Your task to perform on an android device: remove spam from my inbox in the gmail app Image 0: 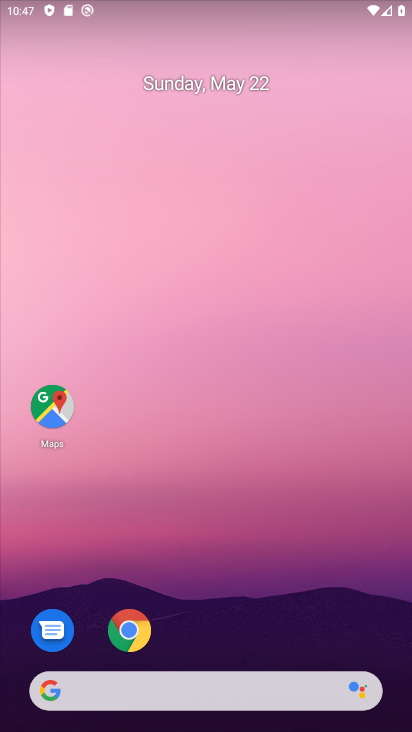
Step 0: drag from (326, 605) to (303, 260)
Your task to perform on an android device: remove spam from my inbox in the gmail app Image 1: 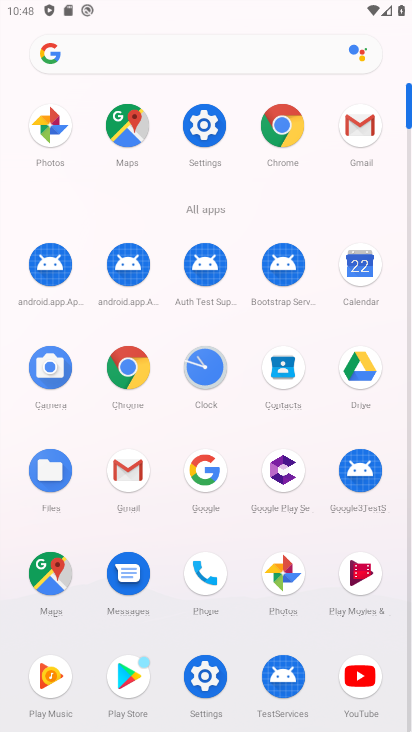
Step 1: click (115, 468)
Your task to perform on an android device: remove spam from my inbox in the gmail app Image 2: 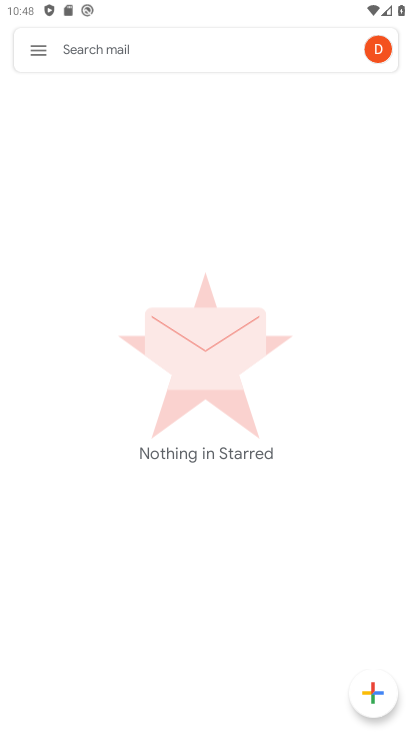
Step 2: click (36, 58)
Your task to perform on an android device: remove spam from my inbox in the gmail app Image 3: 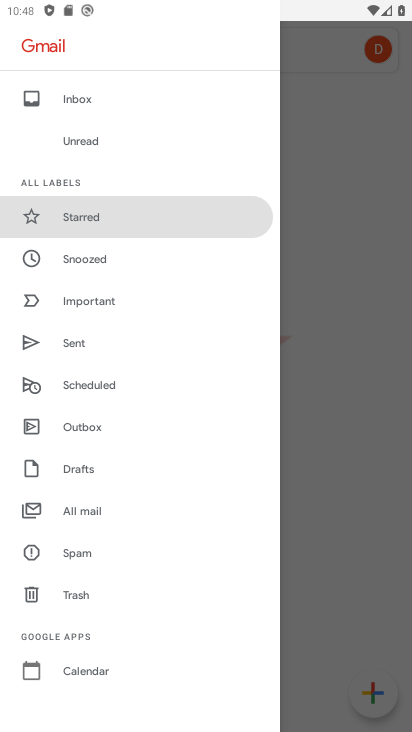
Step 3: drag from (152, 552) to (170, 347)
Your task to perform on an android device: remove spam from my inbox in the gmail app Image 4: 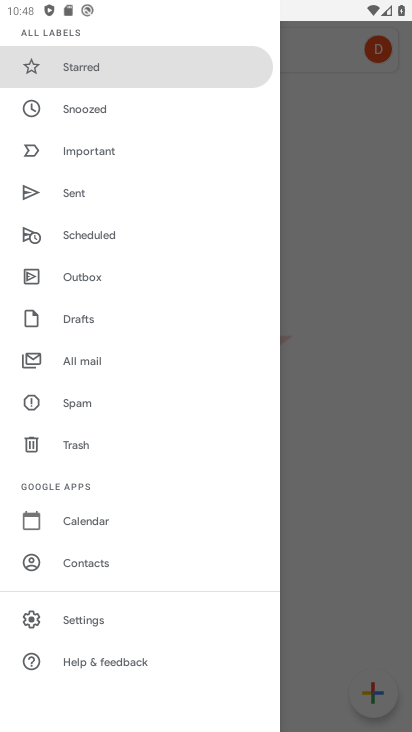
Step 4: drag from (177, 572) to (186, 425)
Your task to perform on an android device: remove spam from my inbox in the gmail app Image 5: 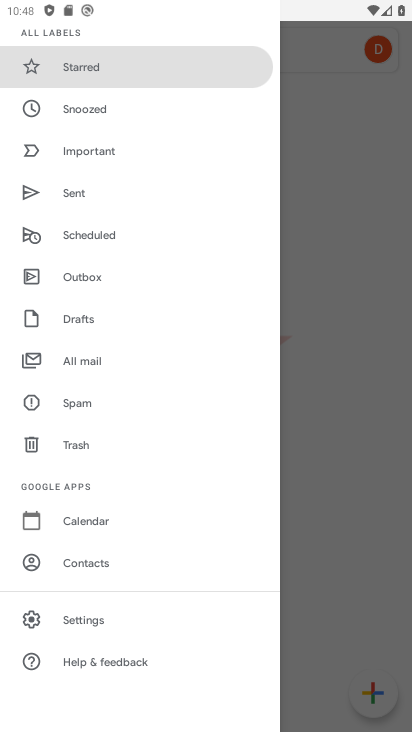
Step 5: drag from (209, 588) to (190, 395)
Your task to perform on an android device: remove spam from my inbox in the gmail app Image 6: 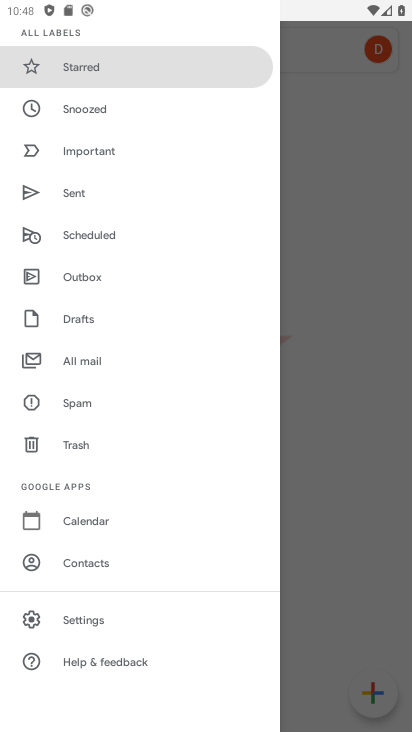
Step 6: drag from (181, 560) to (177, 392)
Your task to perform on an android device: remove spam from my inbox in the gmail app Image 7: 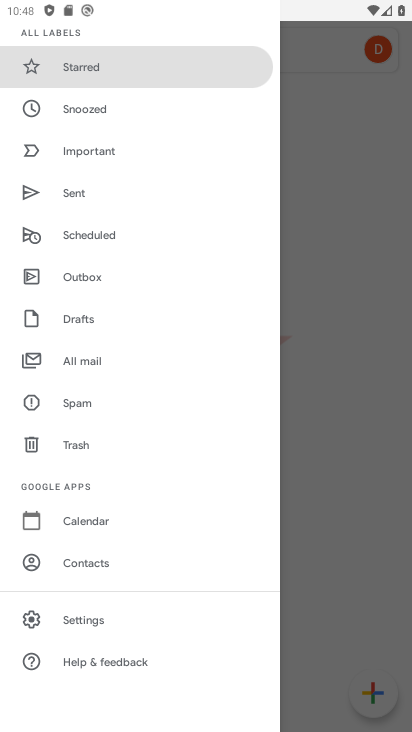
Step 7: drag from (186, 592) to (200, 414)
Your task to perform on an android device: remove spam from my inbox in the gmail app Image 8: 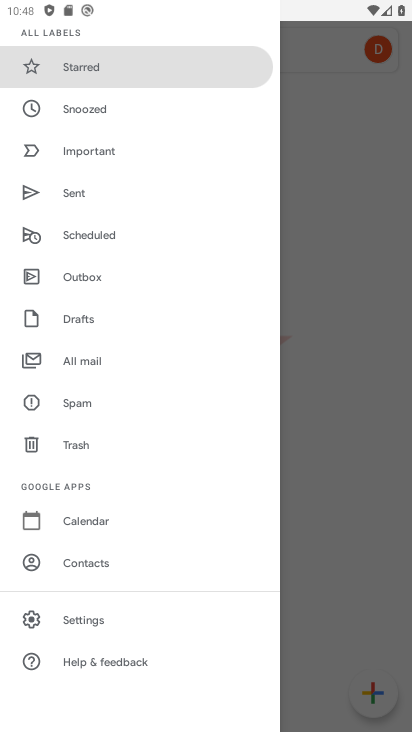
Step 8: drag from (195, 367) to (188, 501)
Your task to perform on an android device: remove spam from my inbox in the gmail app Image 9: 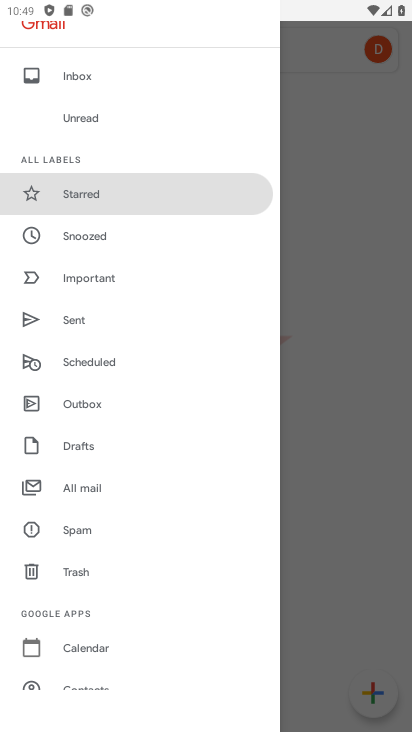
Step 9: drag from (186, 330) to (180, 491)
Your task to perform on an android device: remove spam from my inbox in the gmail app Image 10: 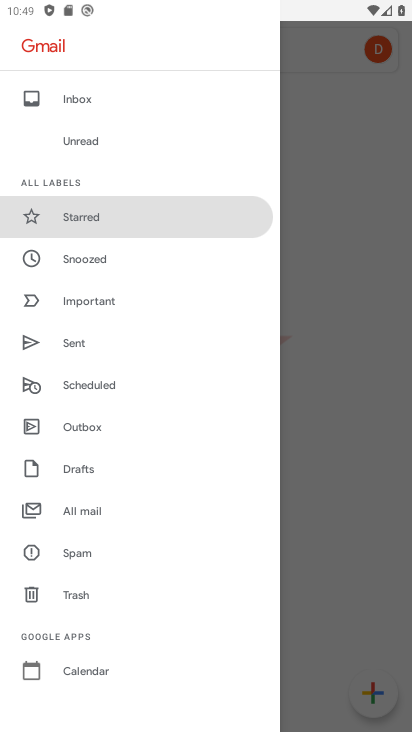
Step 10: drag from (202, 175) to (196, 418)
Your task to perform on an android device: remove spam from my inbox in the gmail app Image 11: 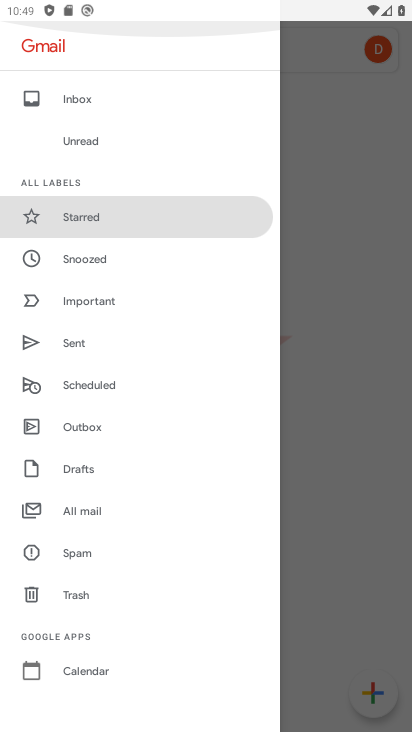
Step 11: drag from (187, 496) to (208, 348)
Your task to perform on an android device: remove spam from my inbox in the gmail app Image 12: 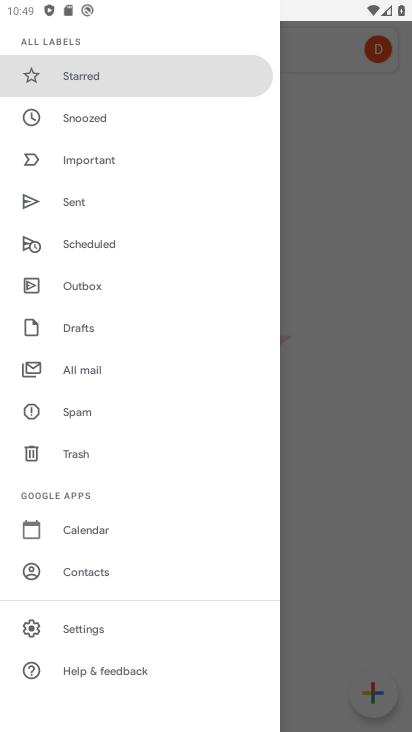
Step 12: drag from (181, 585) to (188, 506)
Your task to perform on an android device: remove spam from my inbox in the gmail app Image 13: 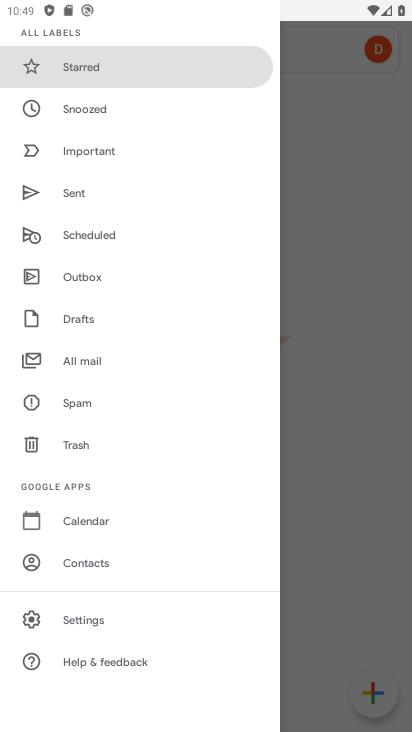
Step 13: drag from (201, 625) to (198, 517)
Your task to perform on an android device: remove spam from my inbox in the gmail app Image 14: 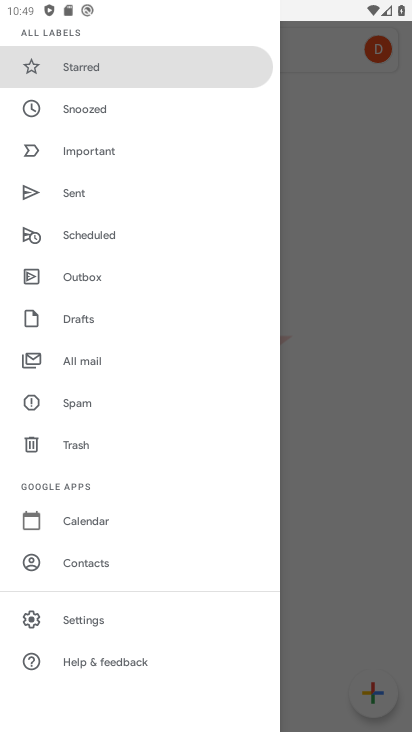
Step 14: click (80, 394)
Your task to perform on an android device: remove spam from my inbox in the gmail app Image 15: 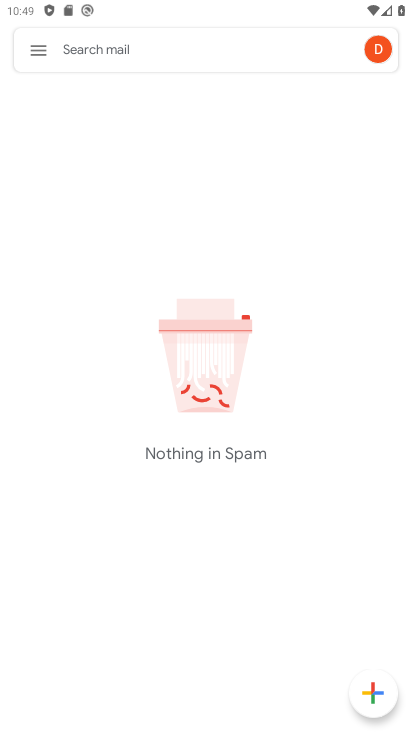
Step 15: task complete